Your task to perform on an android device: Open Amazon Image 0: 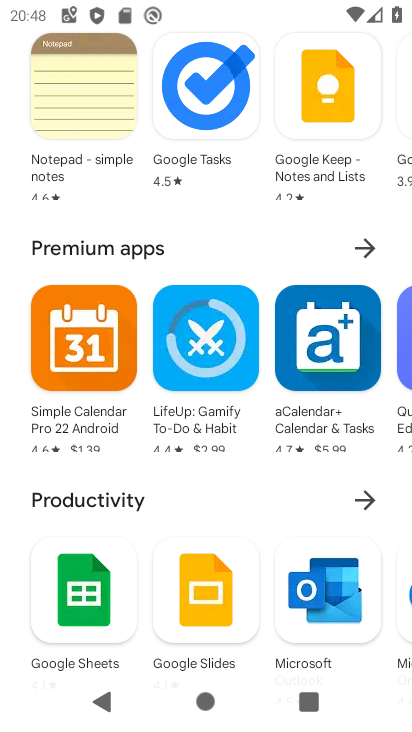
Step 0: press home button
Your task to perform on an android device: Open Amazon Image 1: 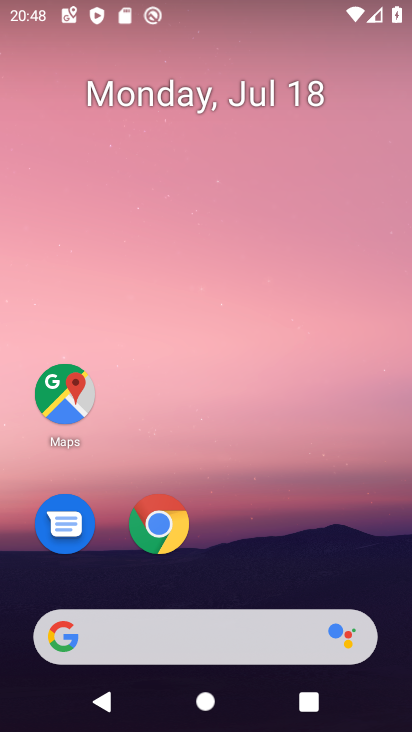
Step 1: drag from (256, 533) to (276, 19)
Your task to perform on an android device: Open Amazon Image 2: 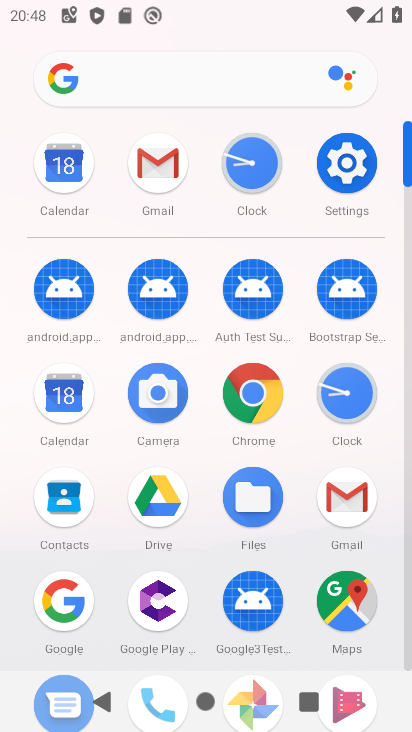
Step 2: click (255, 392)
Your task to perform on an android device: Open Amazon Image 3: 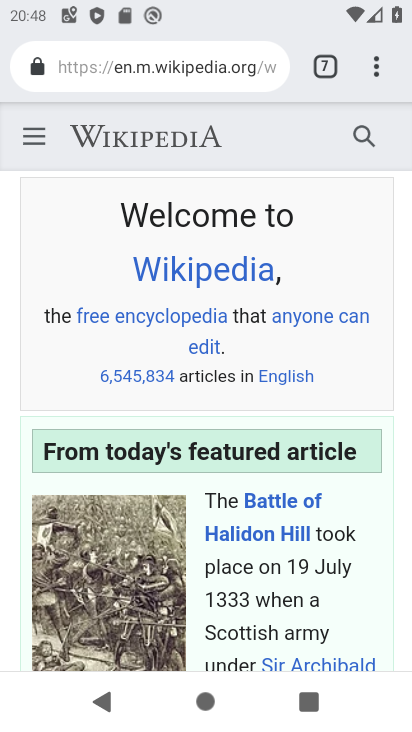
Step 3: click (375, 65)
Your task to perform on an android device: Open Amazon Image 4: 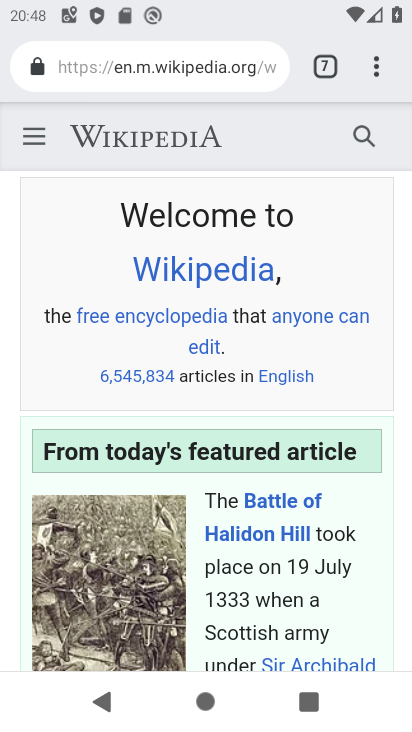
Step 4: click (375, 68)
Your task to perform on an android device: Open Amazon Image 5: 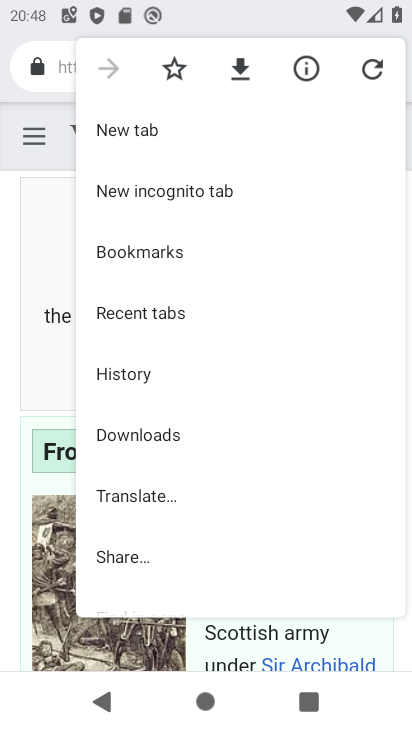
Step 5: click (298, 125)
Your task to perform on an android device: Open Amazon Image 6: 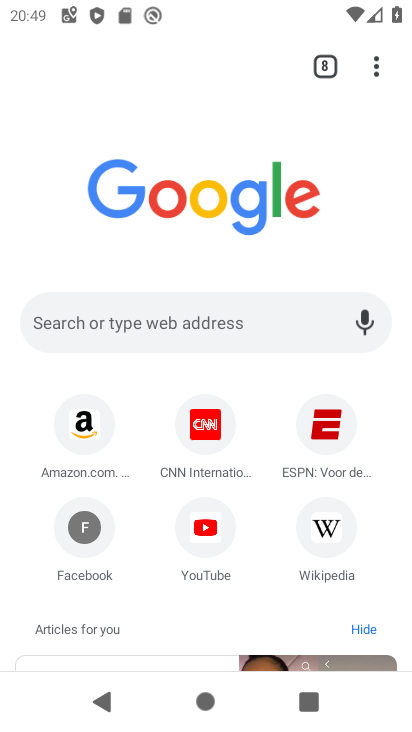
Step 6: click (83, 417)
Your task to perform on an android device: Open Amazon Image 7: 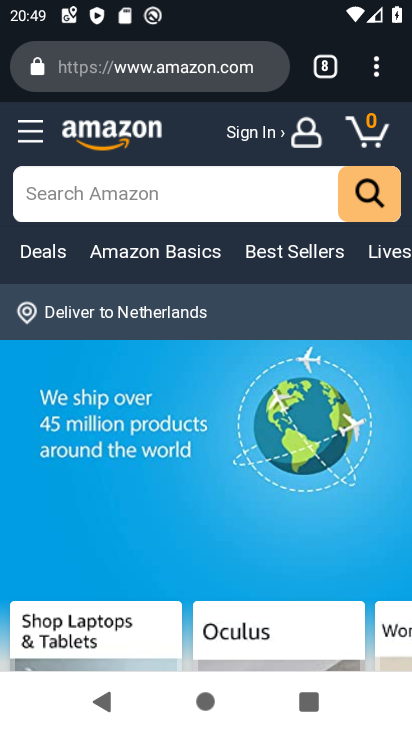
Step 7: task complete